Your task to perform on an android device: toggle improve location accuracy Image 0: 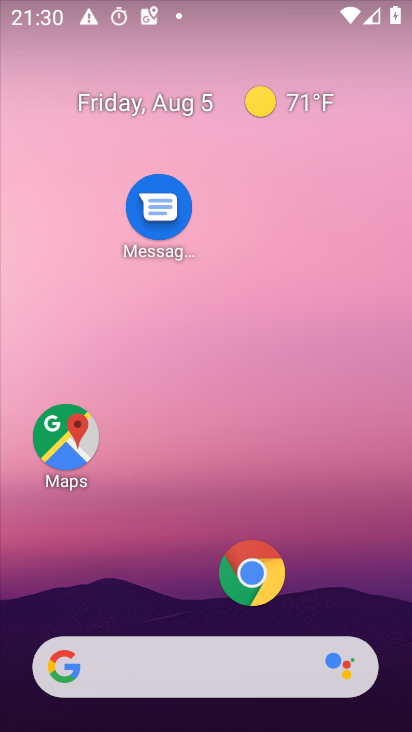
Step 0: drag from (188, 605) to (254, 130)
Your task to perform on an android device: toggle improve location accuracy Image 1: 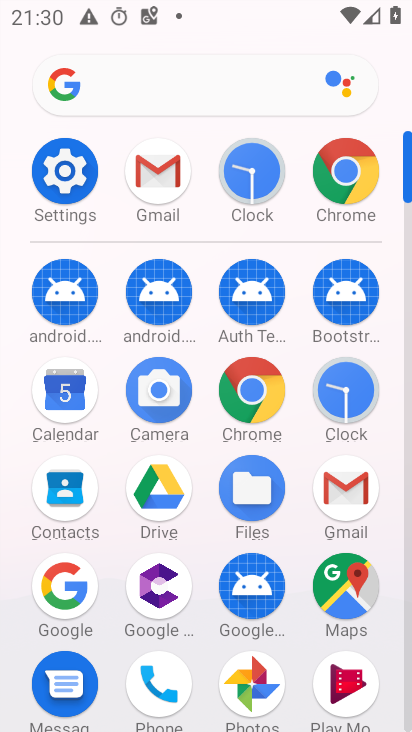
Step 1: click (59, 167)
Your task to perform on an android device: toggle improve location accuracy Image 2: 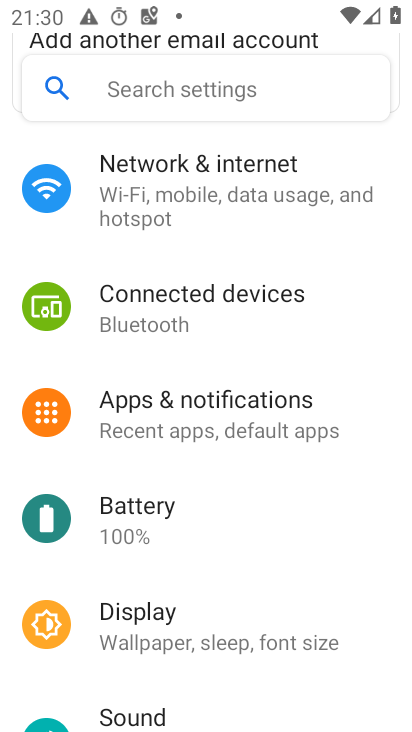
Step 2: drag from (231, 657) to (253, 158)
Your task to perform on an android device: toggle improve location accuracy Image 3: 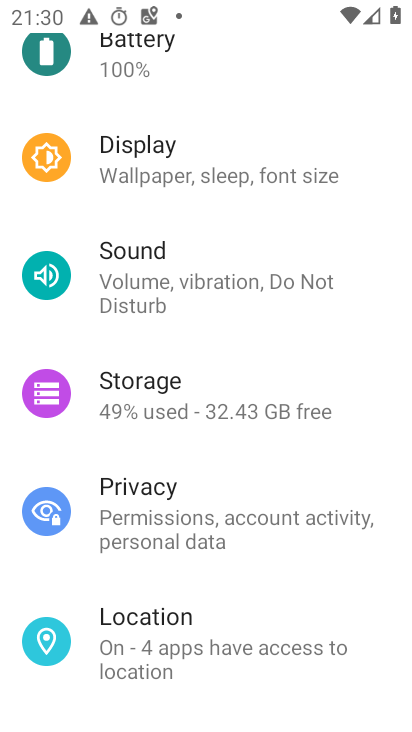
Step 3: click (210, 616)
Your task to perform on an android device: toggle improve location accuracy Image 4: 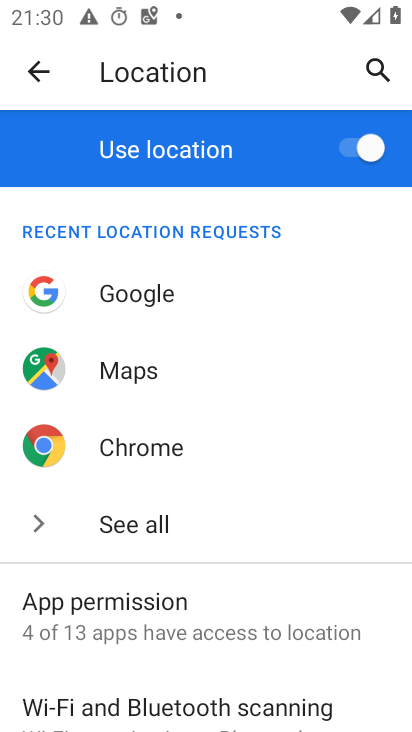
Step 4: drag from (231, 668) to (253, 149)
Your task to perform on an android device: toggle improve location accuracy Image 5: 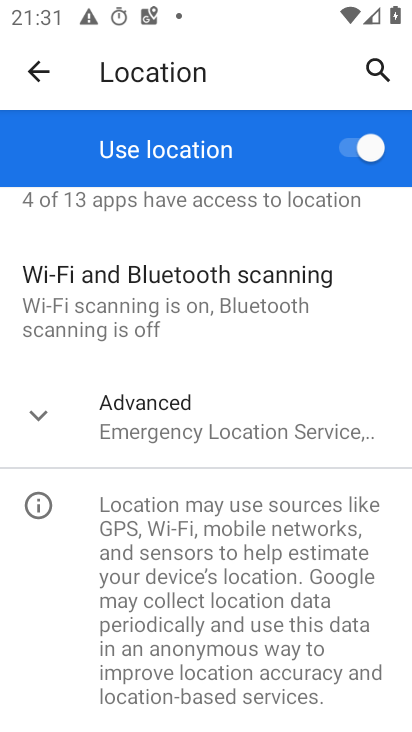
Step 5: click (34, 412)
Your task to perform on an android device: toggle improve location accuracy Image 6: 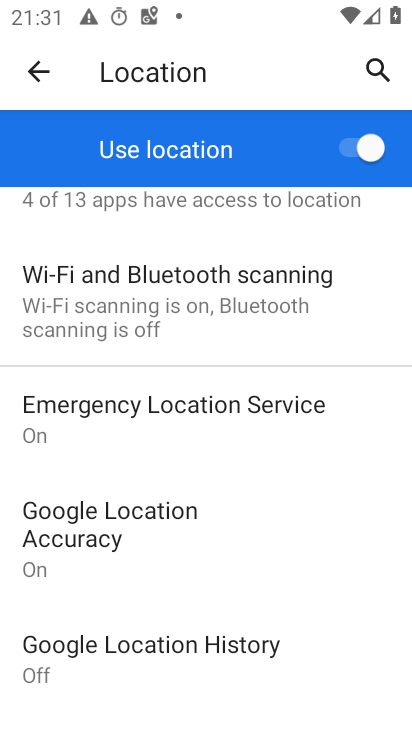
Step 6: click (131, 533)
Your task to perform on an android device: toggle improve location accuracy Image 7: 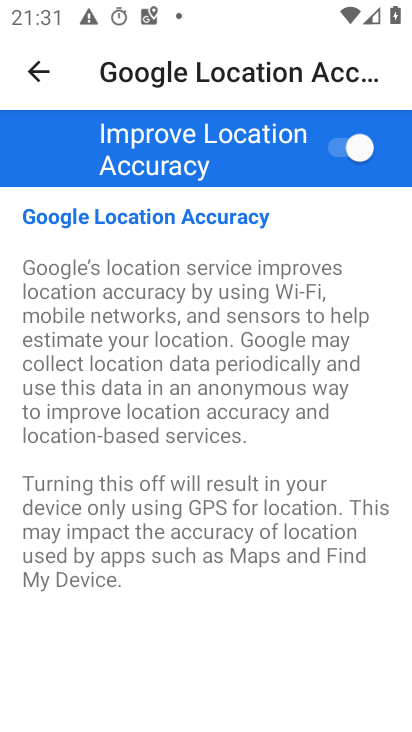
Step 7: click (344, 148)
Your task to perform on an android device: toggle improve location accuracy Image 8: 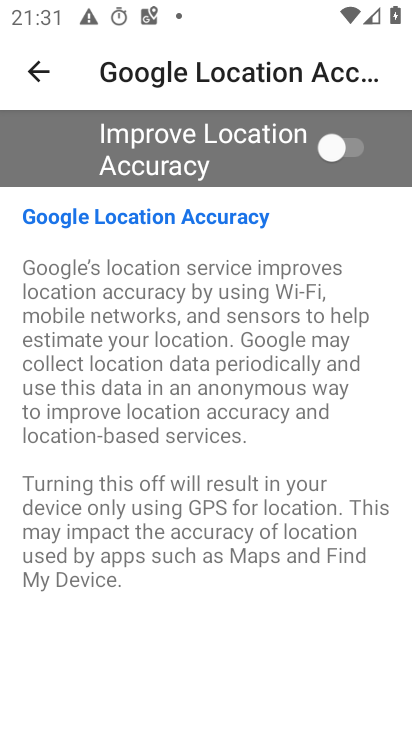
Step 8: task complete